Your task to perform on an android device: set default search engine in the chrome app Image 0: 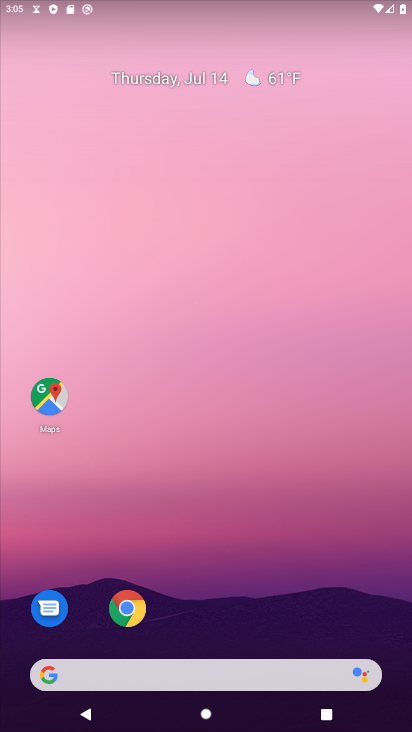
Step 0: click (113, 614)
Your task to perform on an android device: set default search engine in the chrome app Image 1: 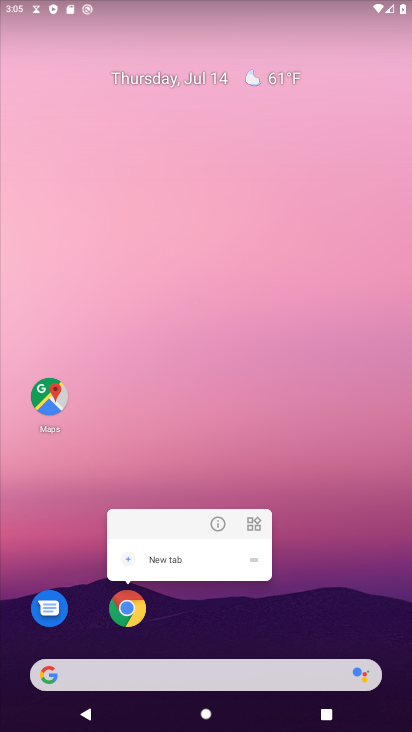
Step 1: click (146, 616)
Your task to perform on an android device: set default search engine in the chrome app Image 2: 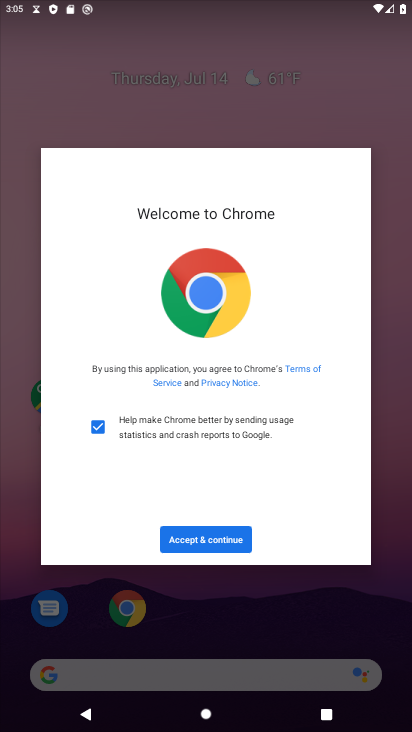
Step 2: click (191, 538)
Your task to perform on an android device: set default search engine in the chrome app Image 3: 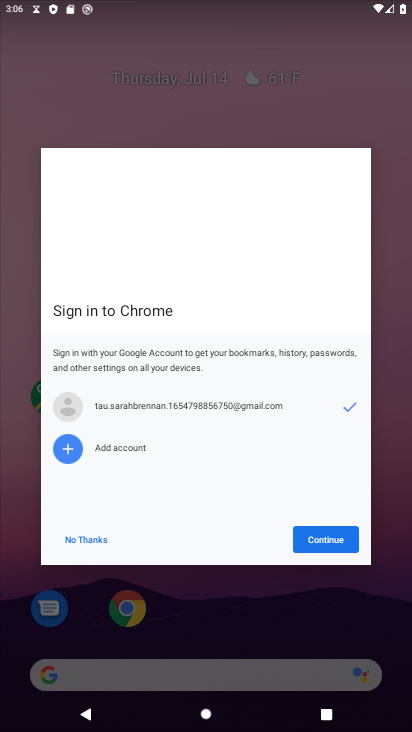
Step 3: click (309, 537)
Your task to perform on an android device: set default search engine in the chrome app Image 4: 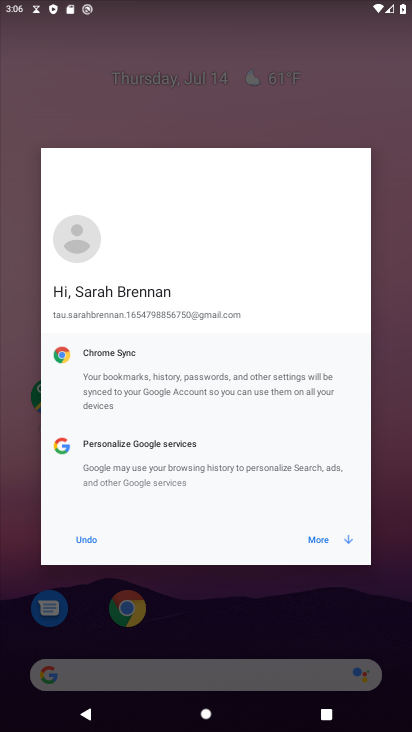
Step 4: click (309, 537)
Your task to perform on an android device: set default search engine in the chrome app Image 5: 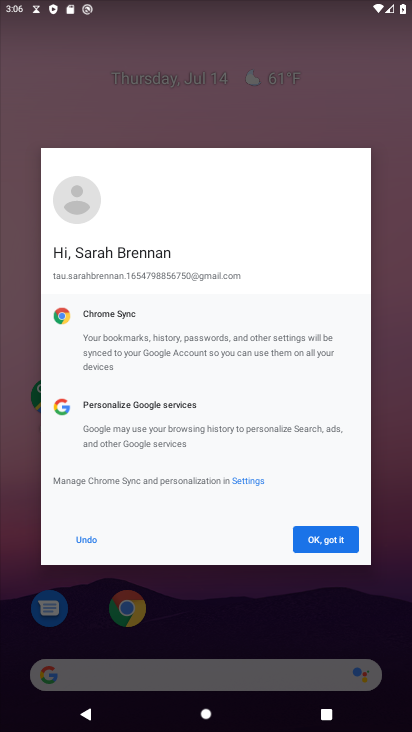
Step 5: click (316, 538)
Your task to perform on an android device: set default search engine in the chrome app Image 6: 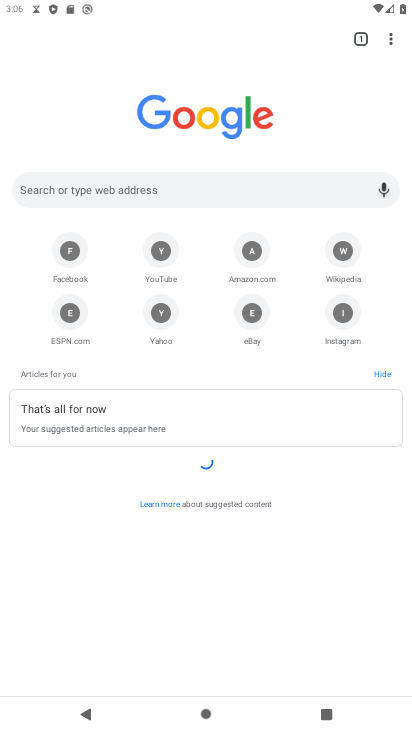
Step 6: drag from (390, 34) to (245, 323)
Your task to perform on an android device: set default search engine in the chrome app Image 7: 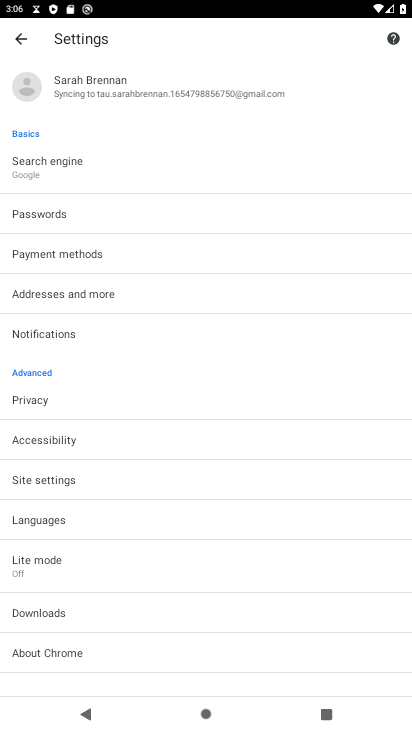
Step 7: click (55, 171)
Your task to perform on an android device: set default search engine in the chrome app Image 8: 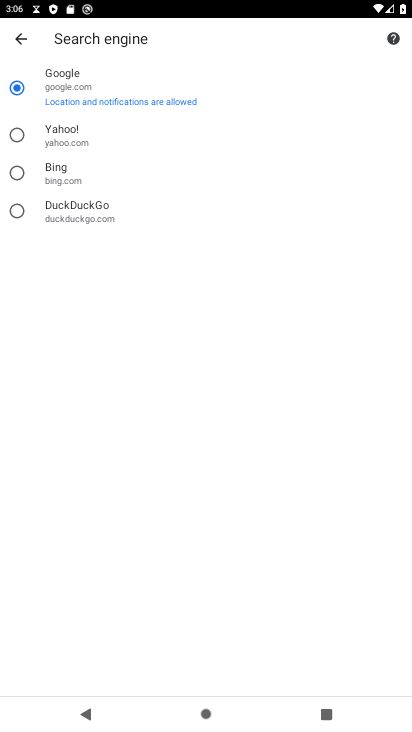
Step 8: click (50, 126)
Your task to perform on an android device: set default search engine in the chrome app Image 9: 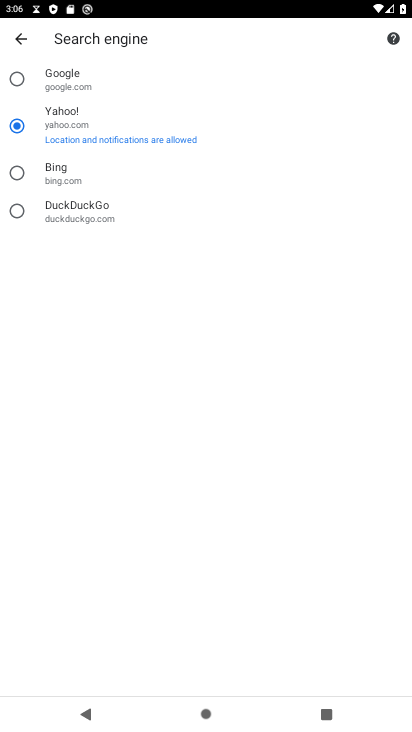
Step 9: task complete